Your task to perform on an android device: delete location history Image 0: 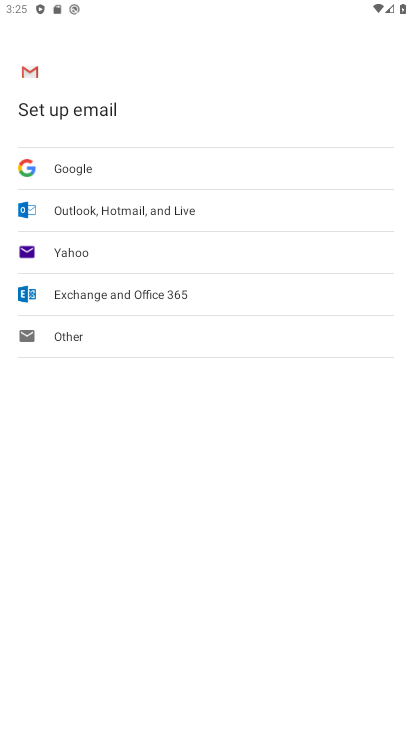
Step 0: press home button
Your task to perform on an android device: delete location history Image 1: 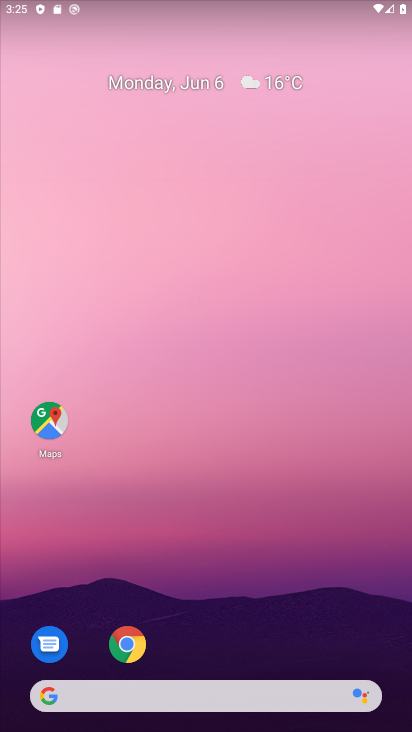
Step 1: click (49, 423)
Your task to perform on an android device: delete location history Image 2: 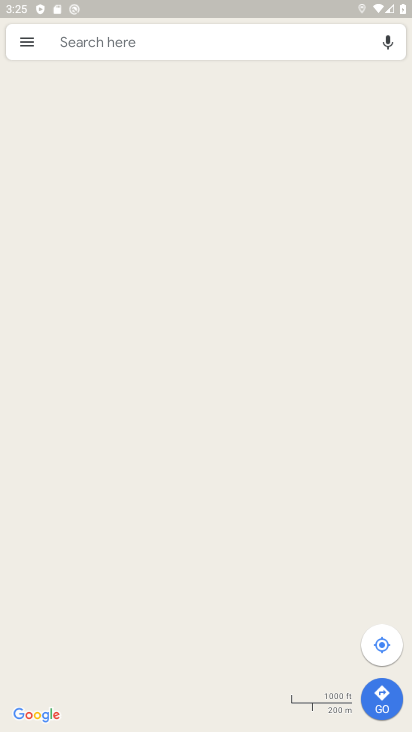
Step 2: click (22, 45)
Your task to perform on an android device: delete location history Image 3: 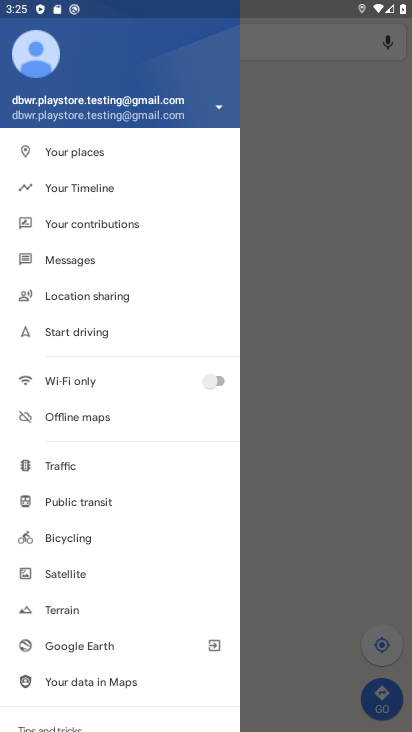
Step 3: drag from (122, 620) to (136, 404)
Your task to perform on an android device: delete location history Image 4: 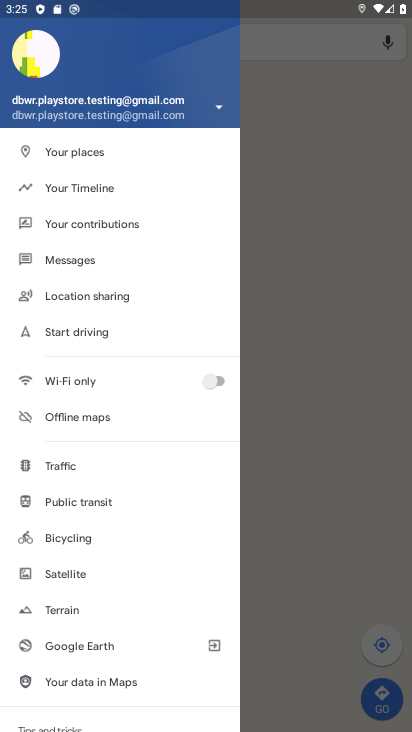
Step 4: drag from (74, 664) to (114, 489)
Your task to perform on an android device: delete location history Image 5: 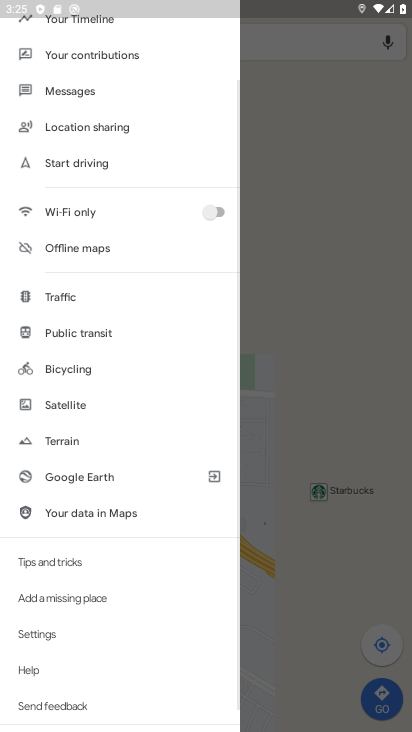
Step 5: click (35, 631)
Your task to perform on an android device: delete location history Image 6: 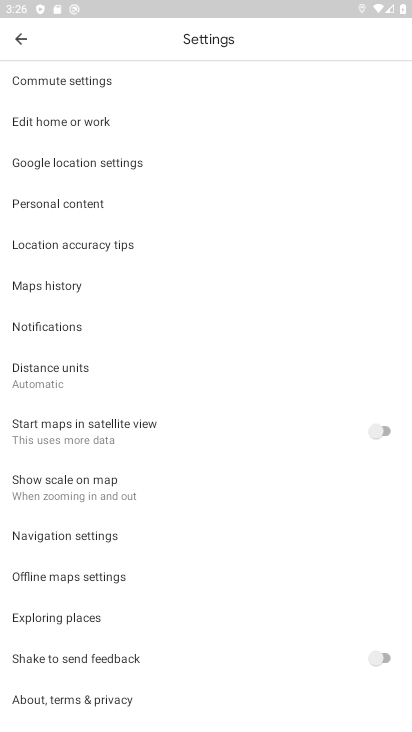
Step 6: click (76, 199)
Your task to perform on an android device: delete location history Image 7: 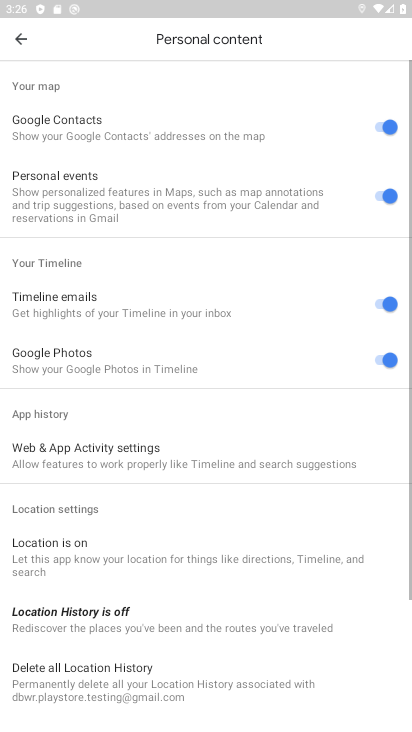
Step 7: drag from (156, 533) to (163, 363)
Your task to perform on an android device: delete location history Image 8: 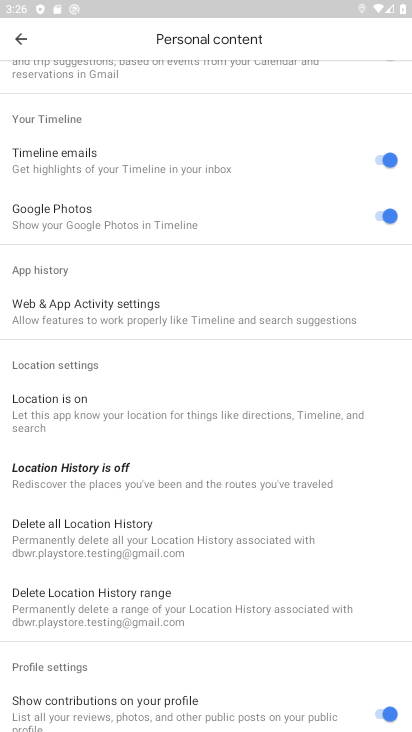
Step 8: click (151, 543)
Your task to perform on an android device: delete location history Image 9: 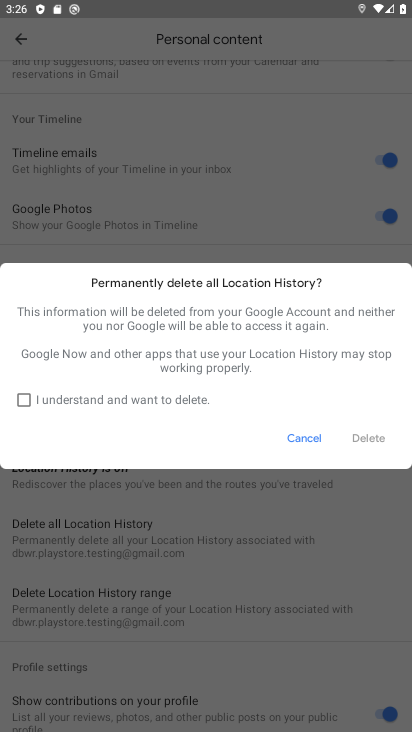
Step 9: click (16, 401)
Your task to perform on an android device: delete location history Image 10: 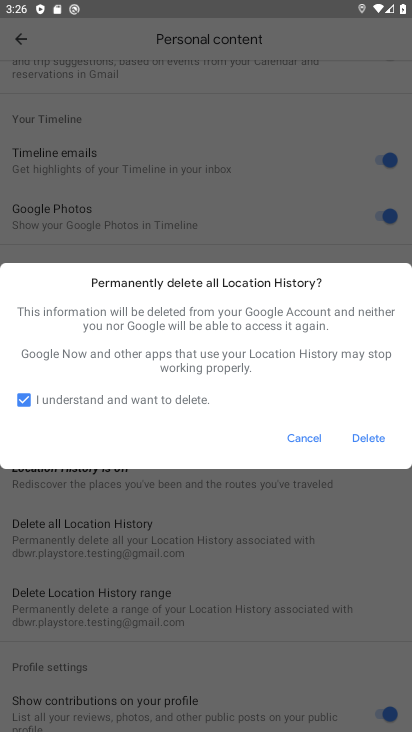
Step 10: click (368, 440)
Your task to perform on an android device: delete location history Image 11: 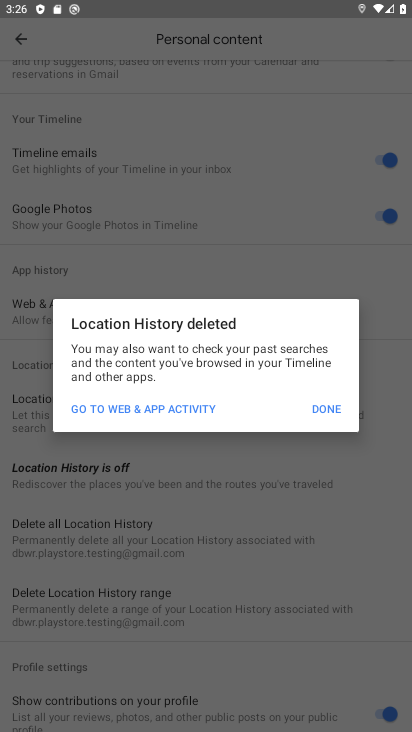
Step 11: task complete